Your task to perform on an android device: open app "Google Translate" (install if not already installed) Image 0: 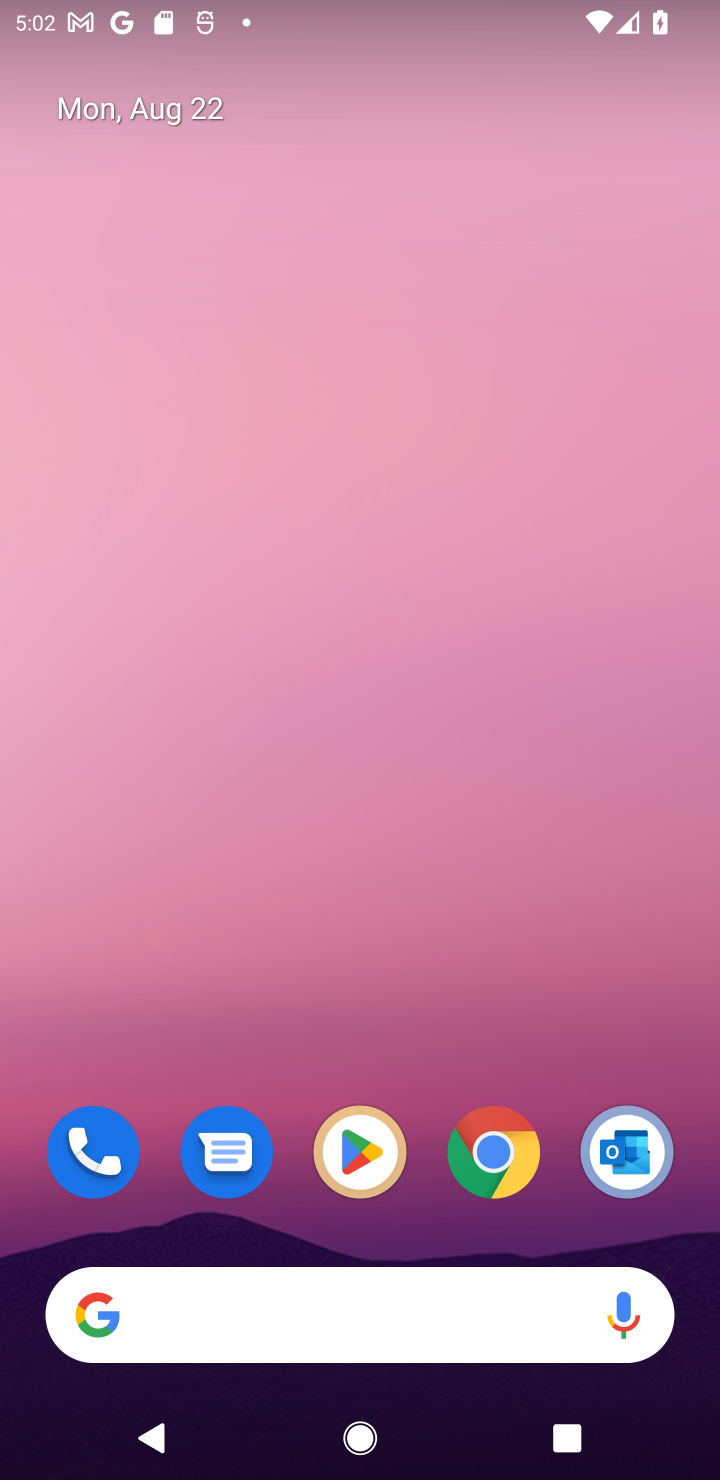
Step 0: click (364, 1172)
Your task to perform on an android device: open app "Google Translate" (install if not already installed) Image 1: 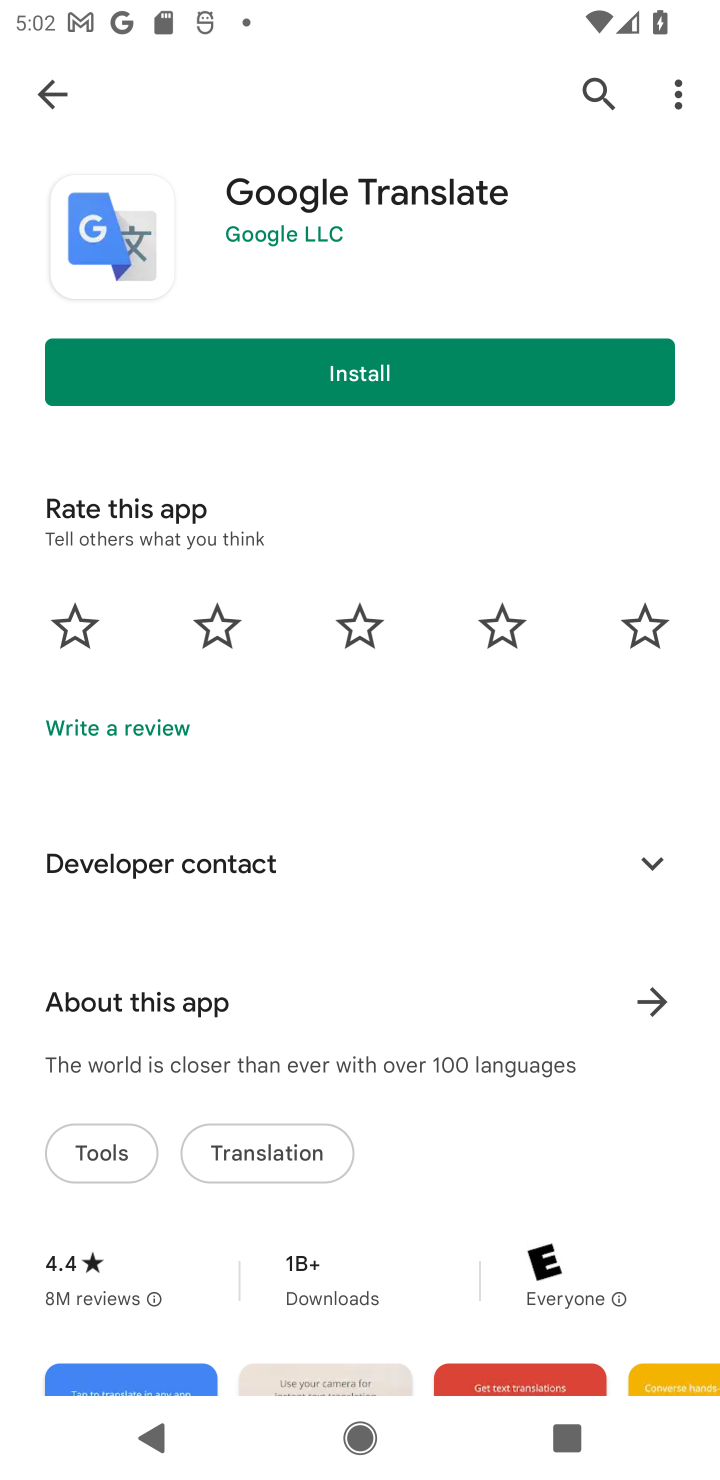
Step 1: click (43, 96)
Your task to perform on an android device: open app "Google Translate" (install if not already installed) Image 2: 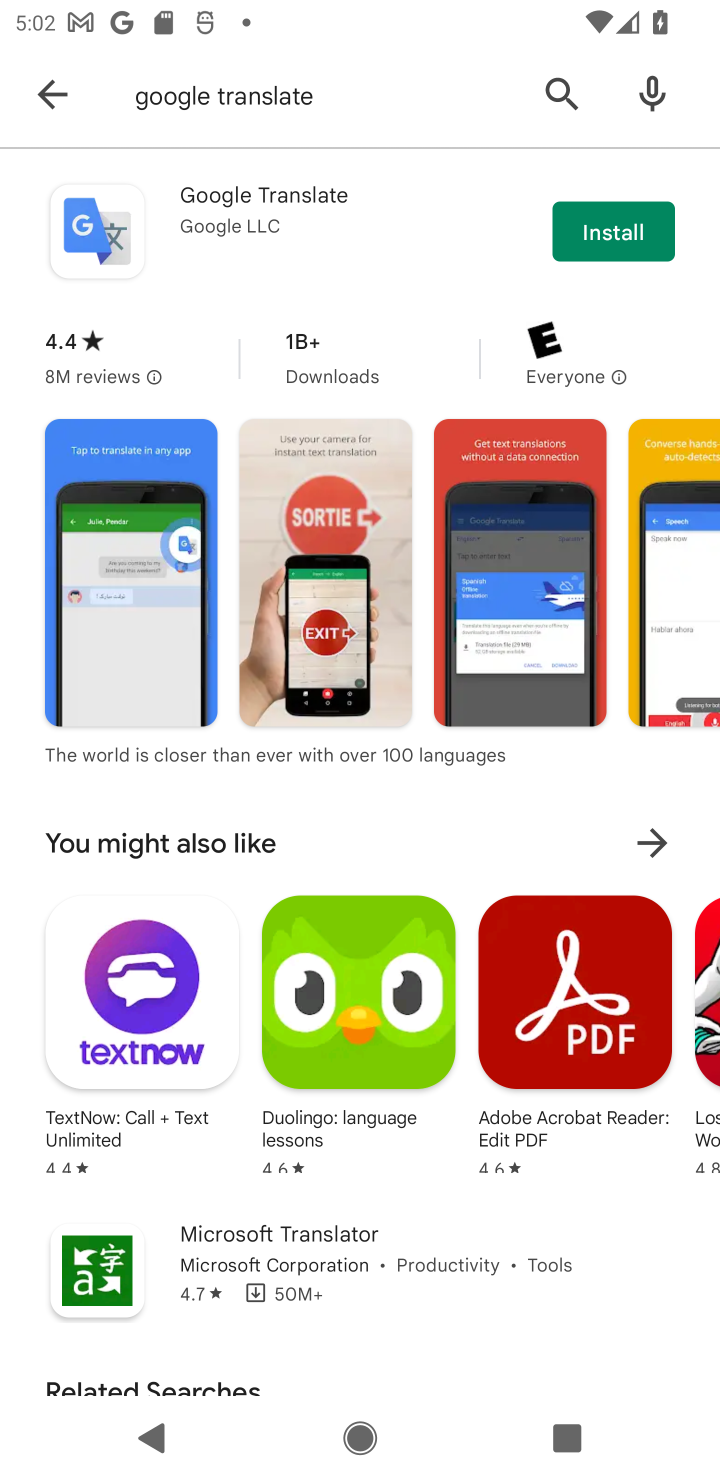
Step 2: click (40, 84)
Your task to perform on an android device: open app "Google Translate" (install if not already installed) Image 3: 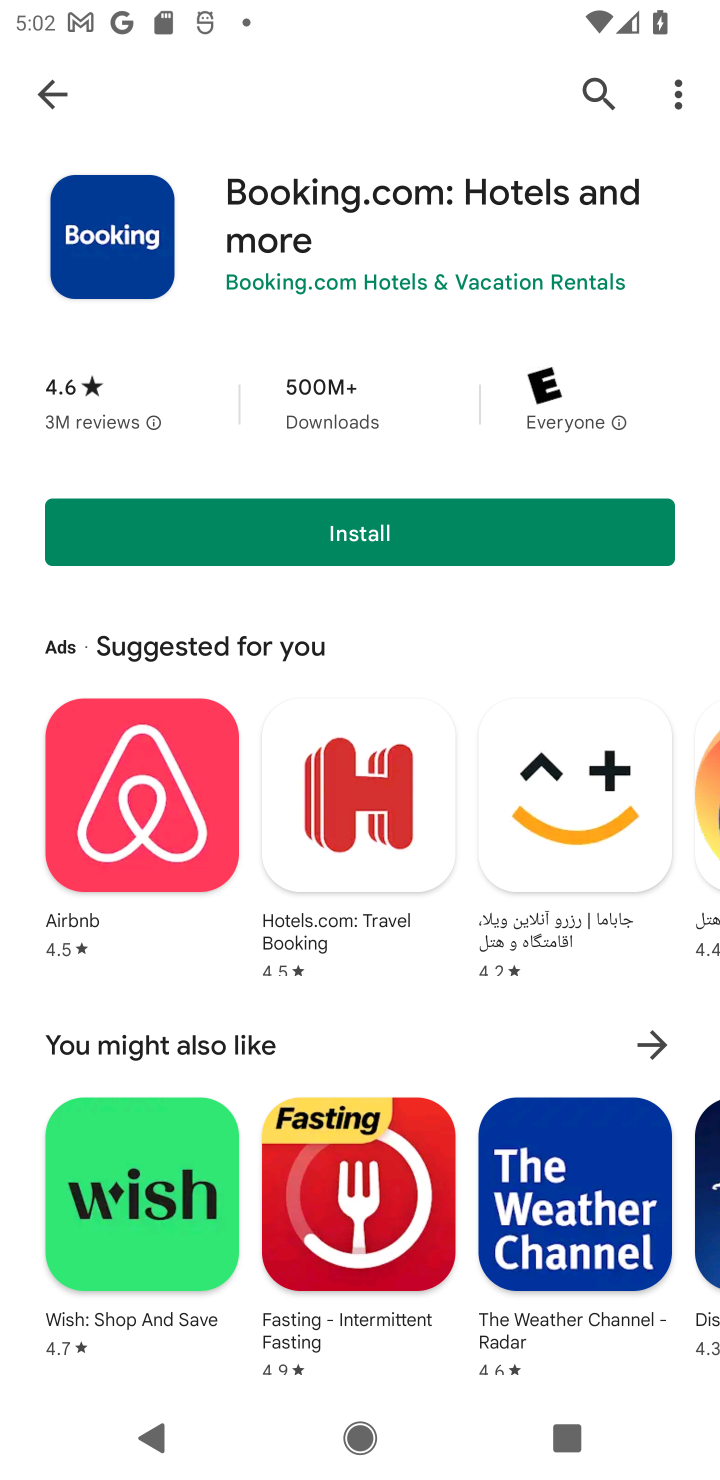
Step 3: click (616, 96)
Your task to perform on an android device: open app "Google Translate" (install if not already installed) Image 4: 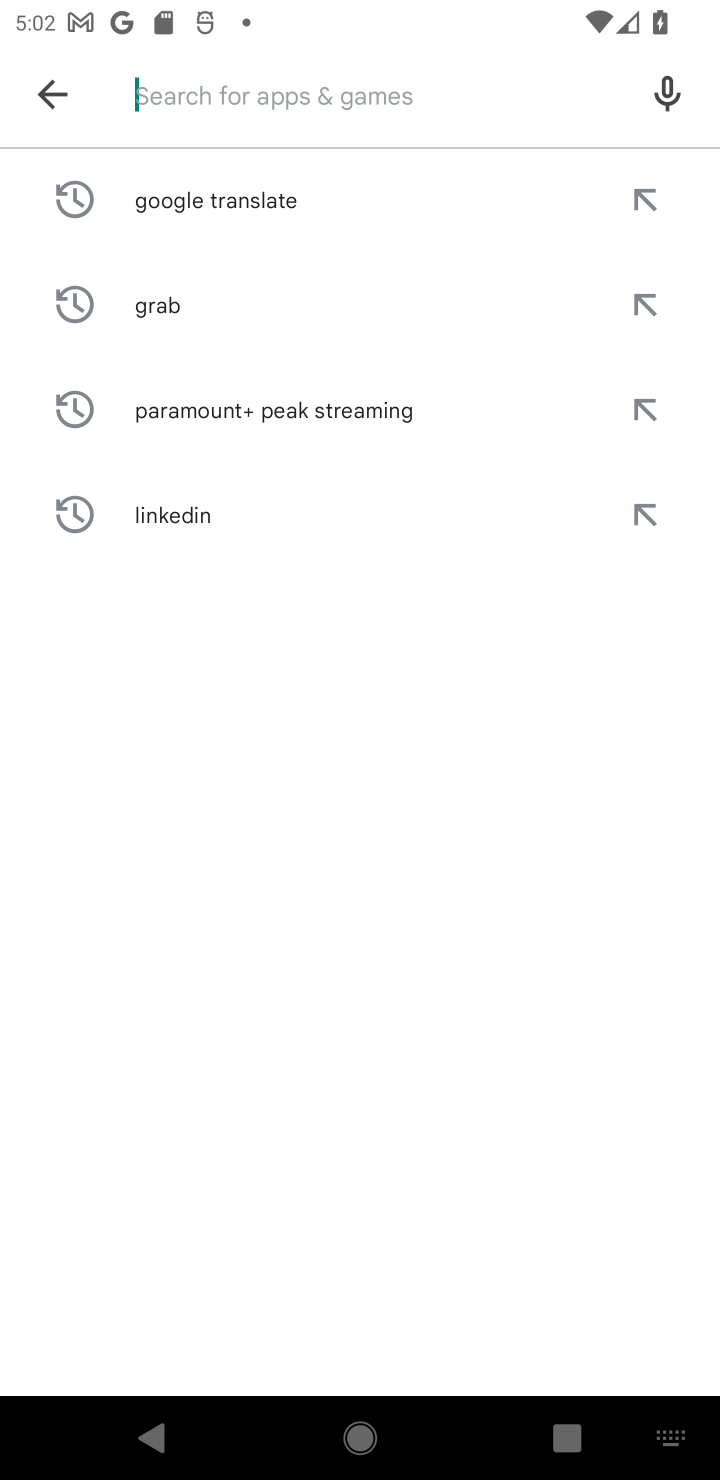
Step 4: type "Google Translate"
Your task to perform on an android device: open app "Google Translate" (install if not already installed) Image 5: 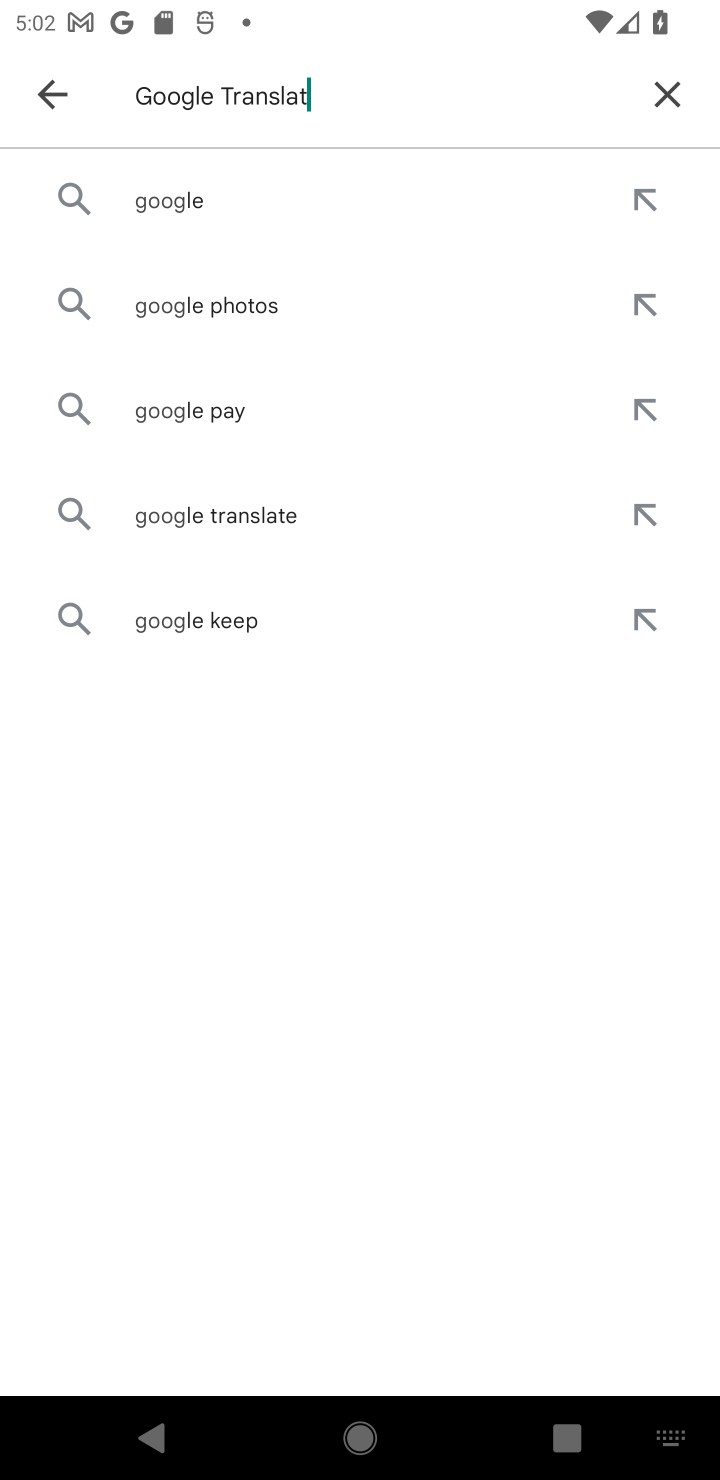
Step 5: type ""
Your task to perform on an android device: open app "Google Translate" (install if not already installed) Image 6: 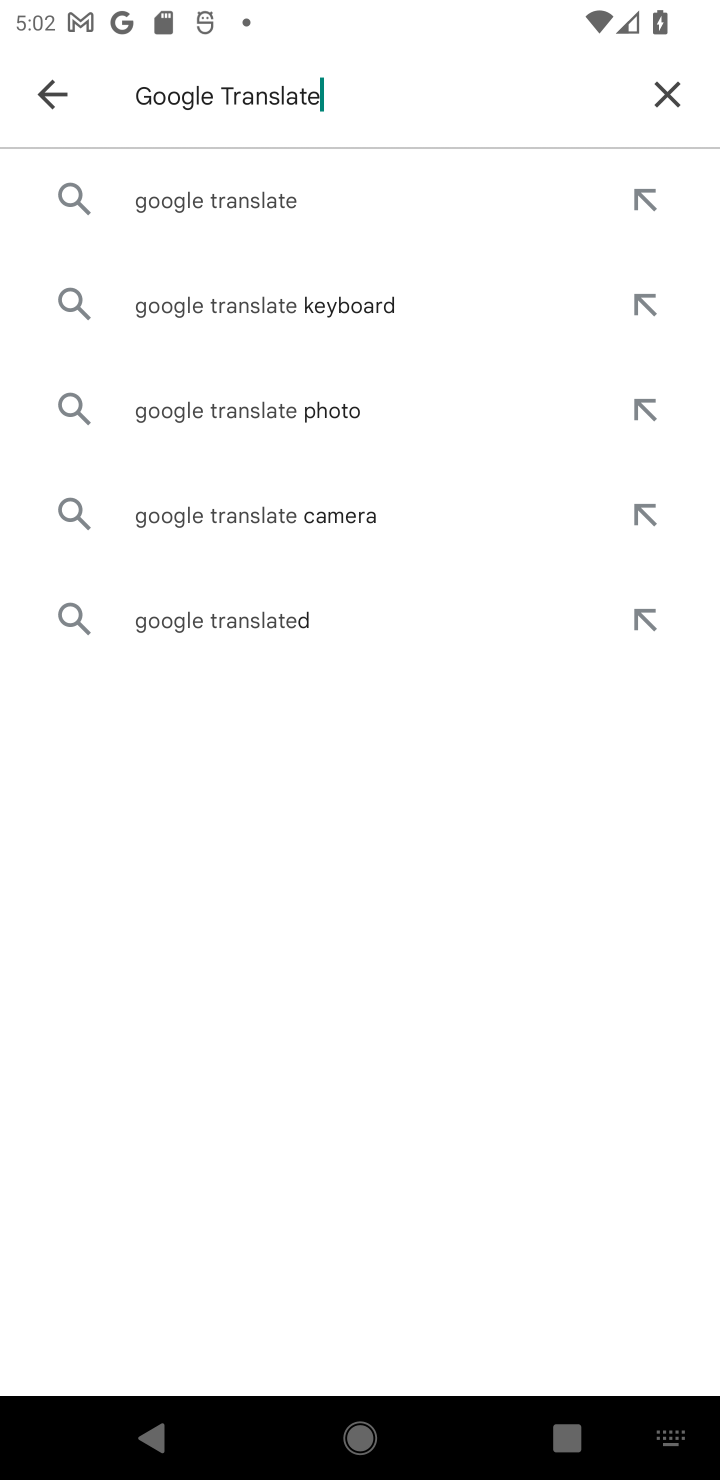
Step 6: click (148, 189)
Your task to perform on an android device: open app "Google Translate" (install if not already installed) Image 7: 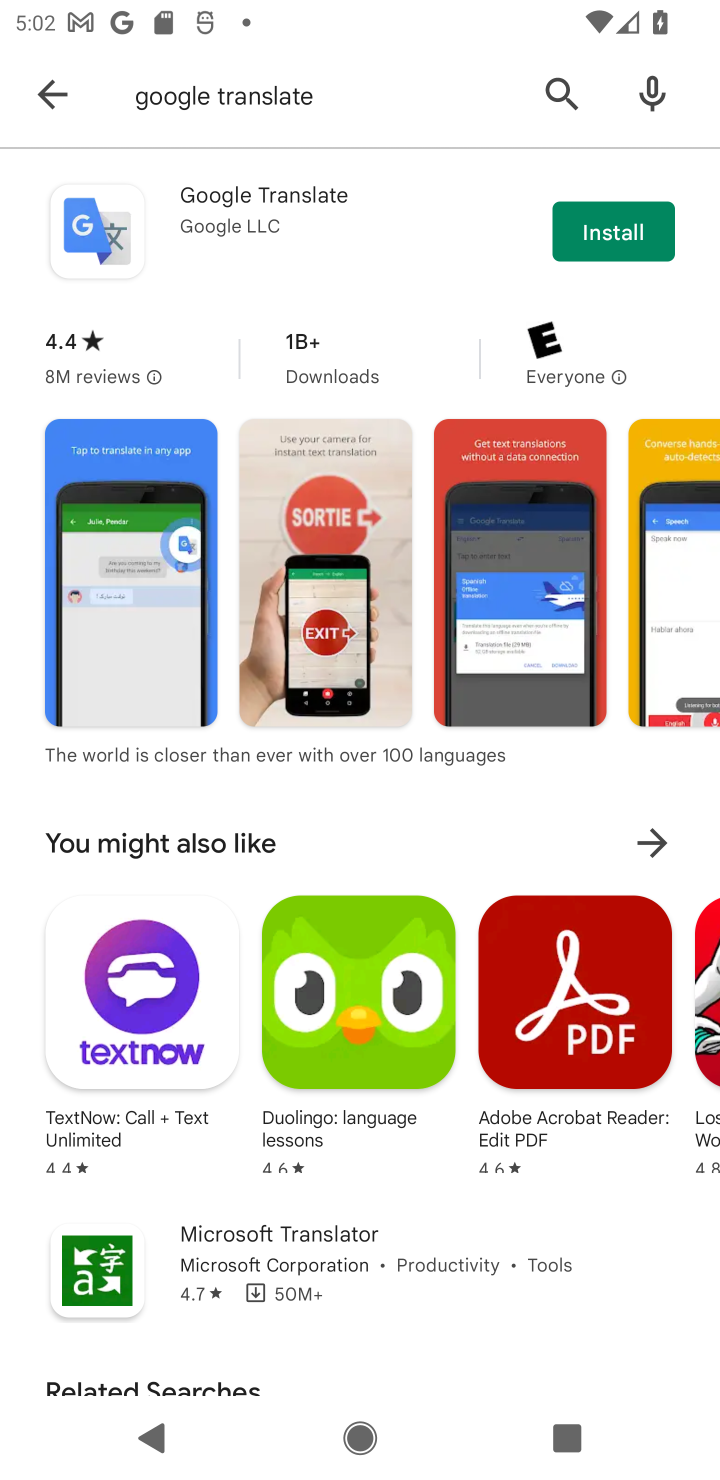
Step 7: click (619, 233)
Your task to perform on an android device: open app "Google Translate" (install if not already installed) Image 8: 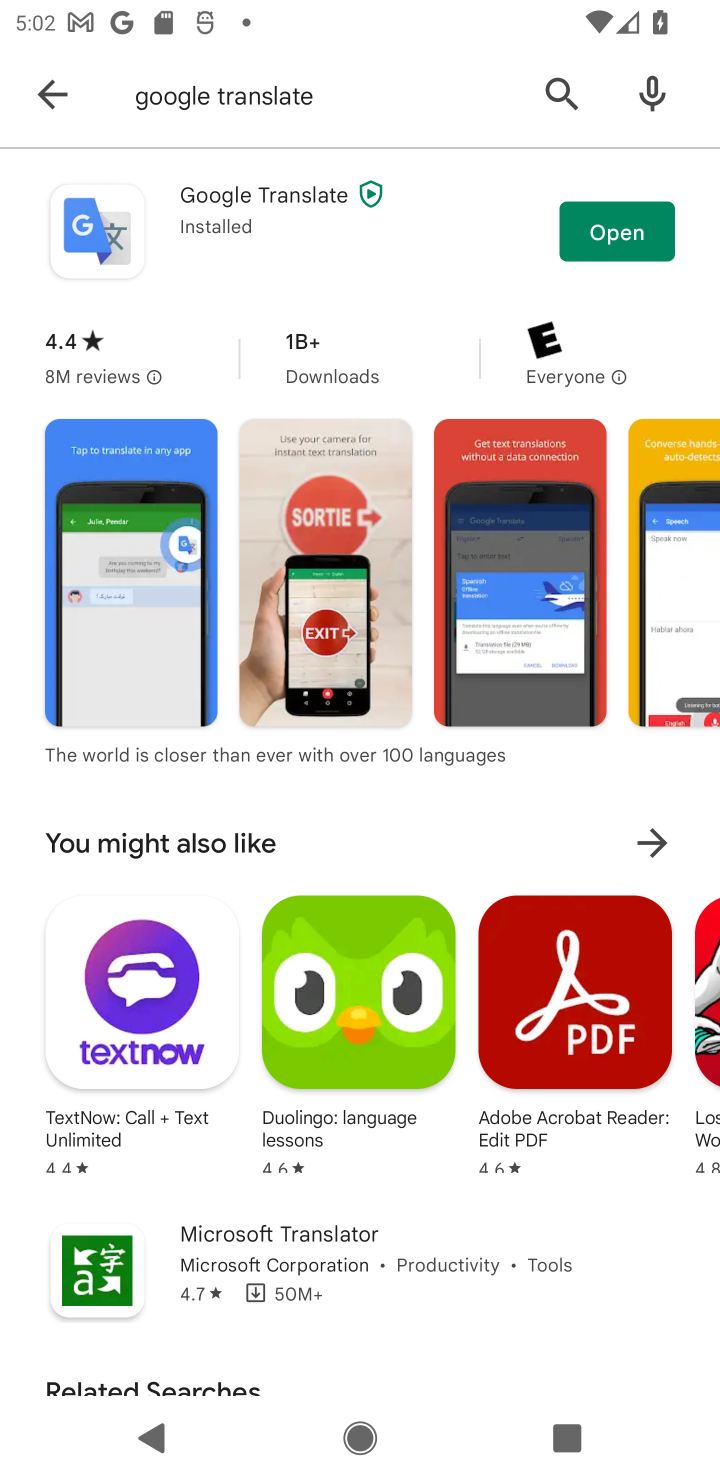
Step 8: click (641, 230)
Your task to perform on an android device: open app "Google Translate" (install if not already installed) Image 9: 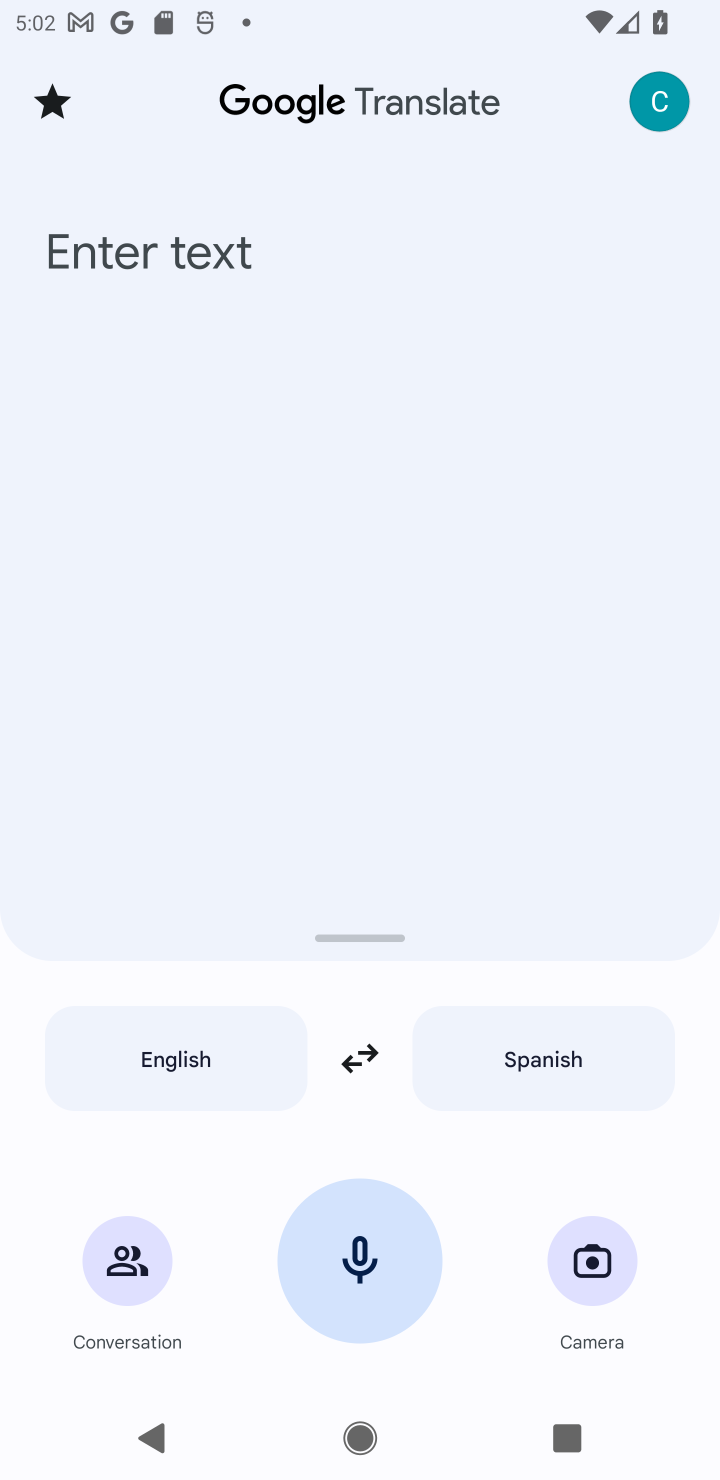
Step 9: task complete